Your task to perform on an android device: Is it going to rain this weekend? Image 0: 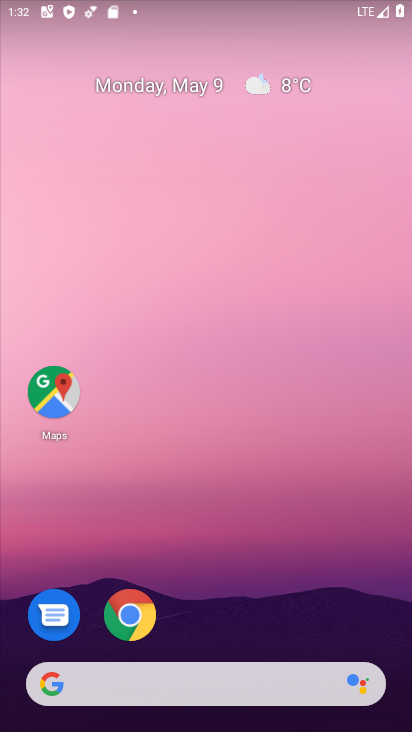
Step 0: click (287, 84)
Your task to perform on an android device: Is it going to rain this weekend? Image 1: 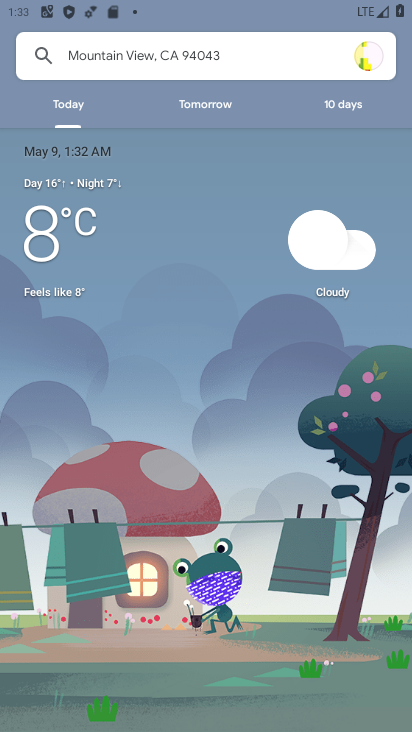
Step 1: click (344, 107)
Your task to perform on an android device: Is it going to rain this weekend? Image 2: 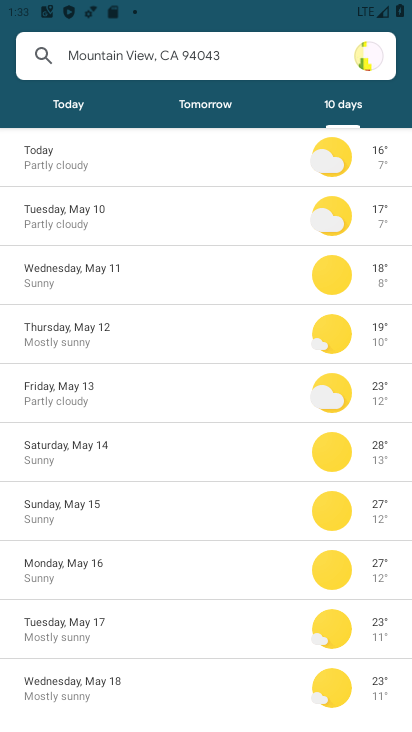
Step 2: task complete